Your task to perform on an android device: Go to wifi settings Image 0: 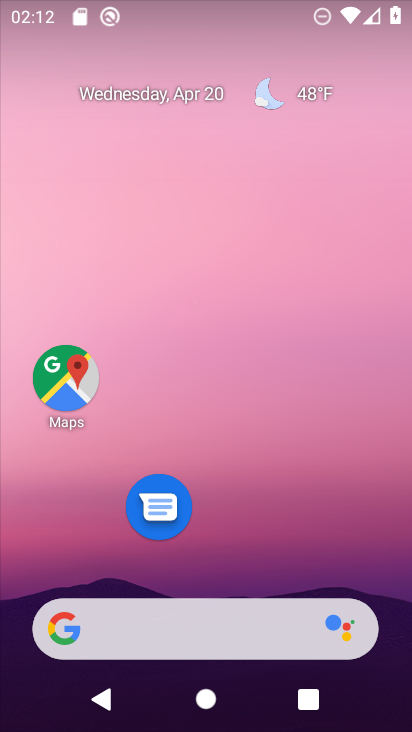
Step 0: drag from (215, 723) to (211, 66)
Your task to perform on an android device: Go to wifi settings Image 1: 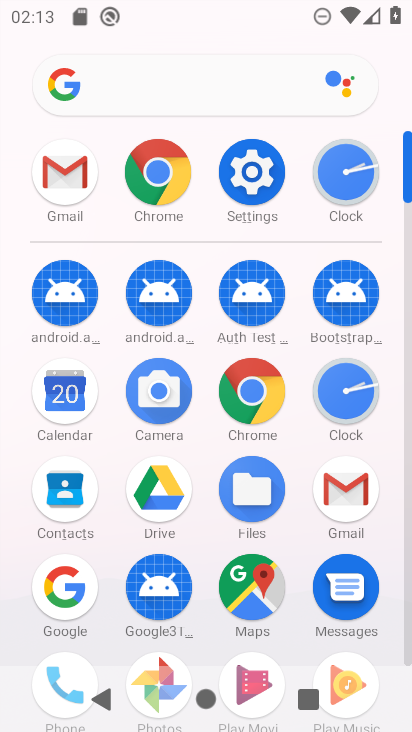
Step 1: click (266, 164)
Your task to perform on an android device: Go to wifi settings Image 2: 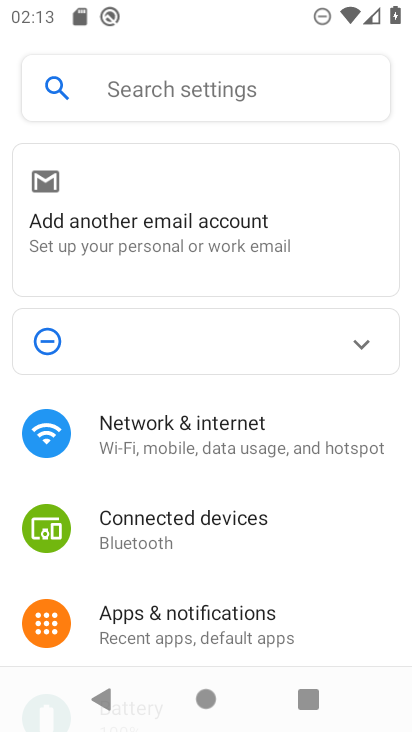
Step 2: click (182, 436)
Your task to perform on an android device: Go to wifi settings Image 3: 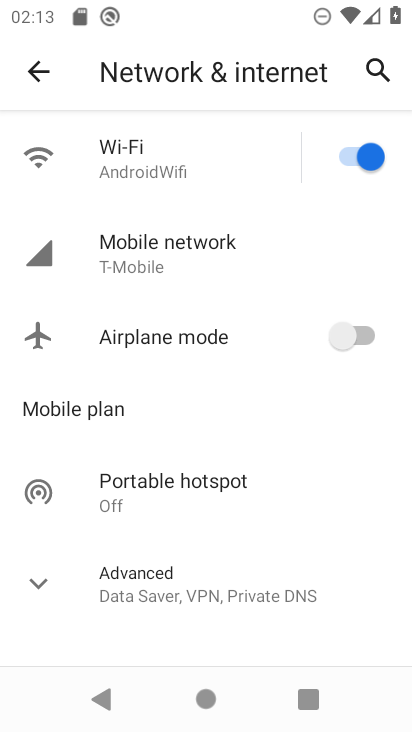
Step 3: click (133, 150)
Your task to perform on an android device: Go to wifi settings Image 4: 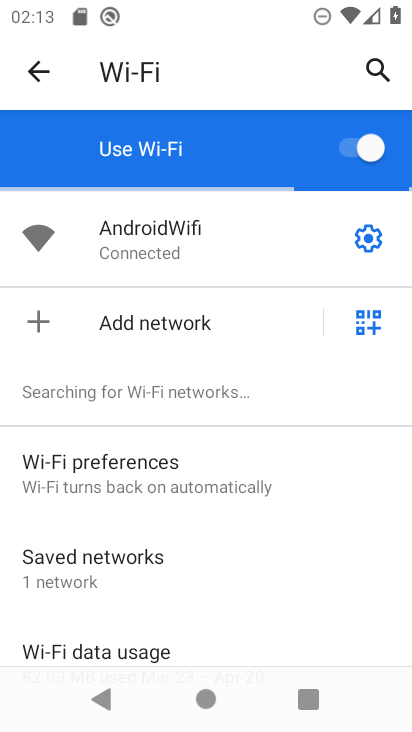
Step 4: click (366, 233)
Your task to perform on an android device: Go to wifi settings Image 5: 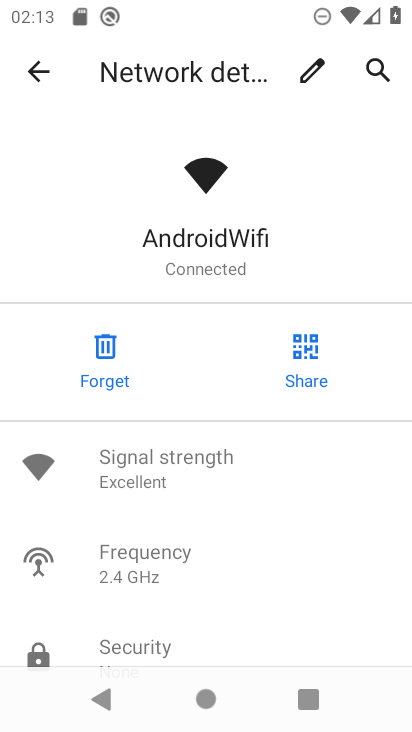
Step 5: task complete